Your task to perform on an android device: Open Yahoo.com Image 0: 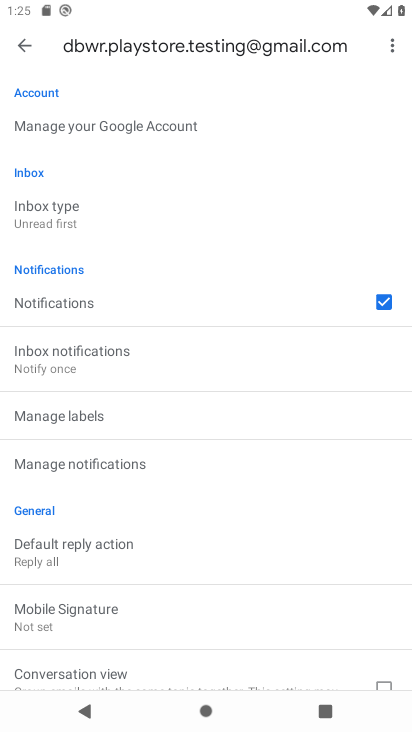
Step 0: press home button
Your task to perform on an android device: Open Yahoo.com Image 1: 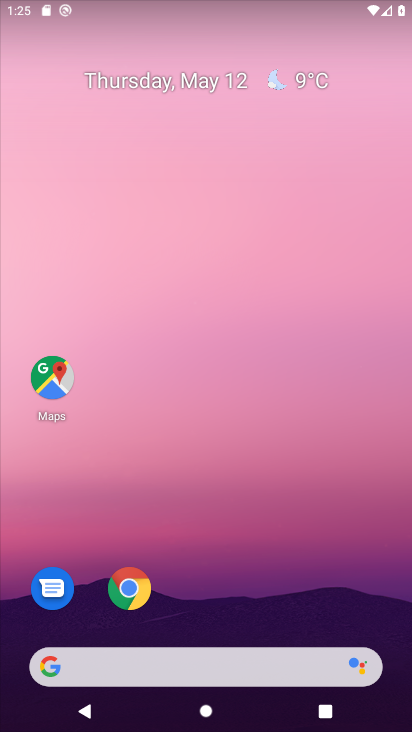
Step 1: click (131, 580)
Your task to perform on an android device: Open Yahoo.com Image 2: 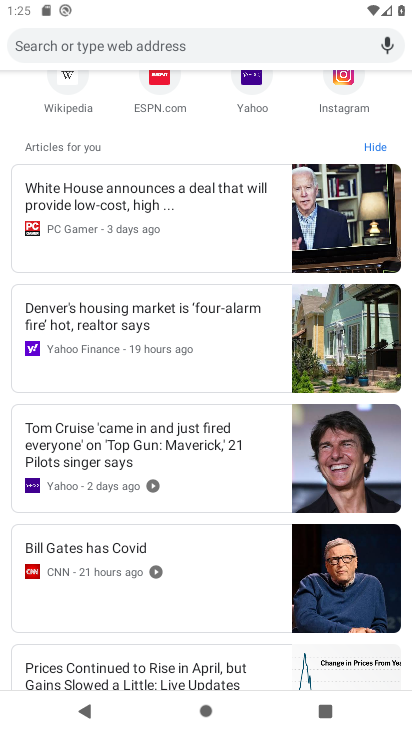
Step 2: drag from (171, 319) to (209, 684)
Your task to perform on an android device: Open Yahoo.com Image 3: 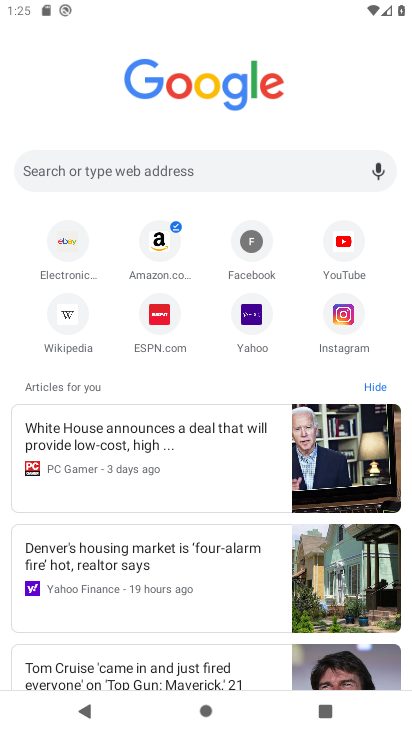
Step 3: click (249, 316)
Your task to perform on an android device: Open Yahoo.com Image 4: 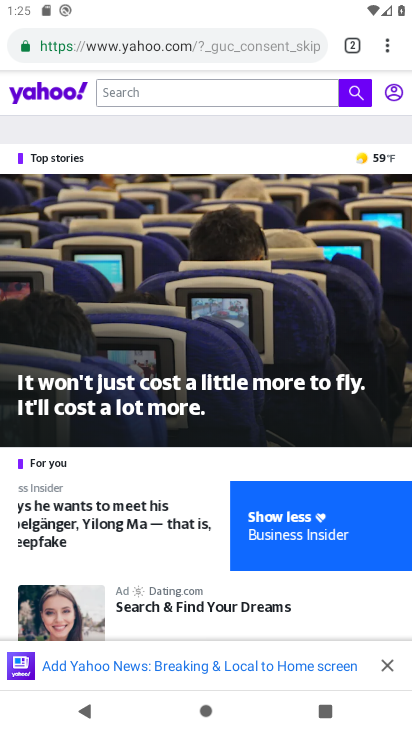
Step 4: task complete